Your task to perform on an android device: turn off smart reply in the gmail app Image 0: 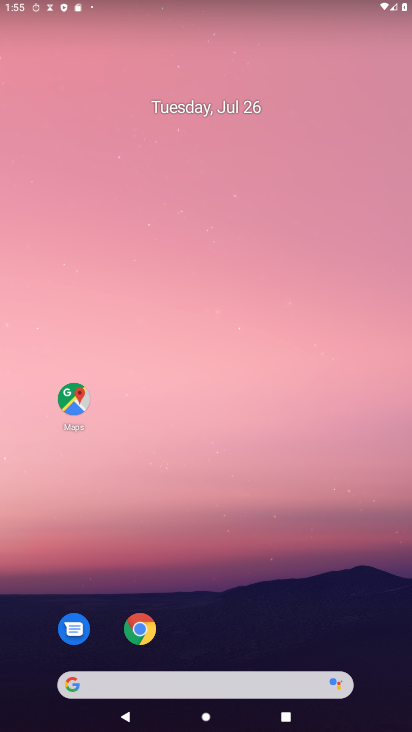
Step 0: drag from (257, 631) to (352, 39)
Your task to perform on an android device: turn off smart reply in the gmail app Image 1: 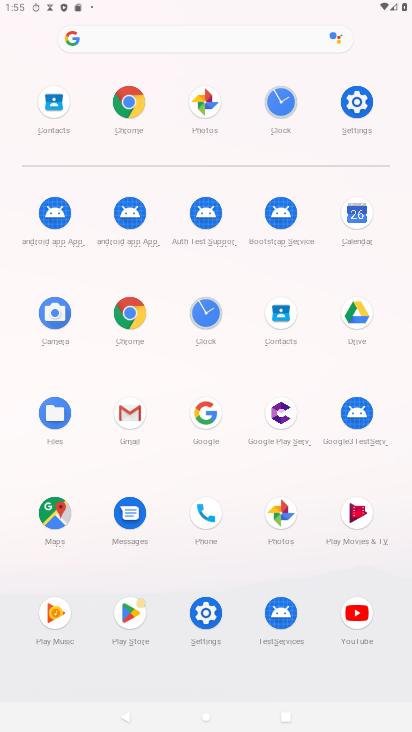
Step 1: click (121, 419)
Your task to perform on an android device: turn off smart reply in the gmail app Image 2: 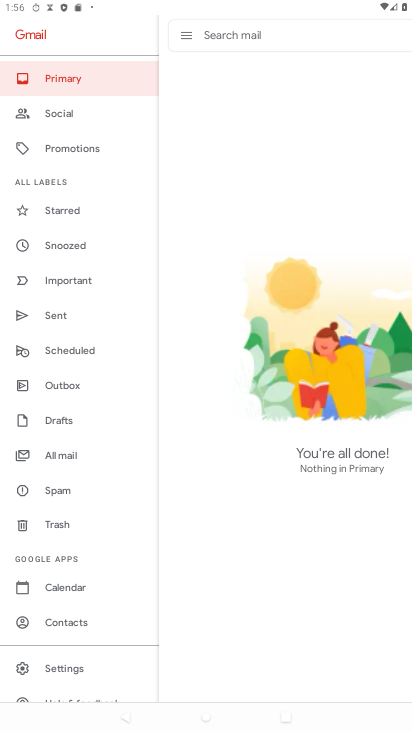
Step 2: click (113, 660)
Your task to perform on an android device: turn off smart reply in the gmail app Image 3: 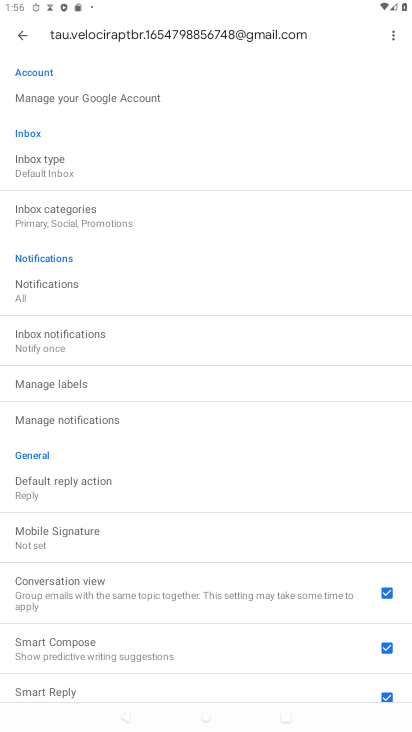
Step 3: click (111, 689)
Your task to perform on an android device: turn off smart reply in the gmail app Image 4: 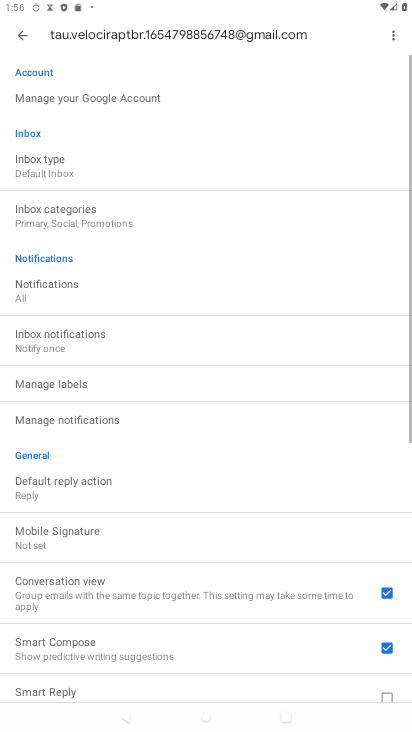
Step 4: task complete